Your task to perform on an android device: Go to Yahoo.com Image 0: 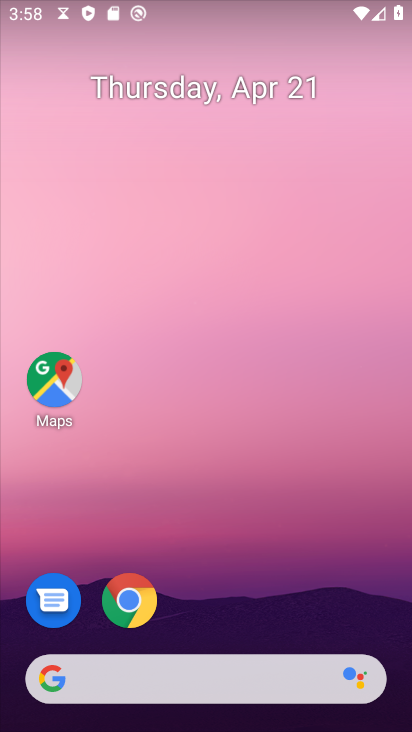
Step 0: click (128, 596)
Your task to perform on an android device: Go to Yahoo.com Image 1: 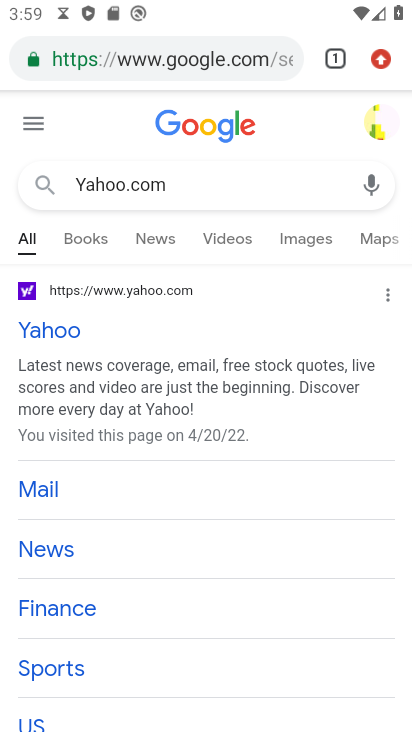
Step 1: task complete